Your task to perform on an android device: Open the Play Movies app and select the watchlist tab. Image 0: 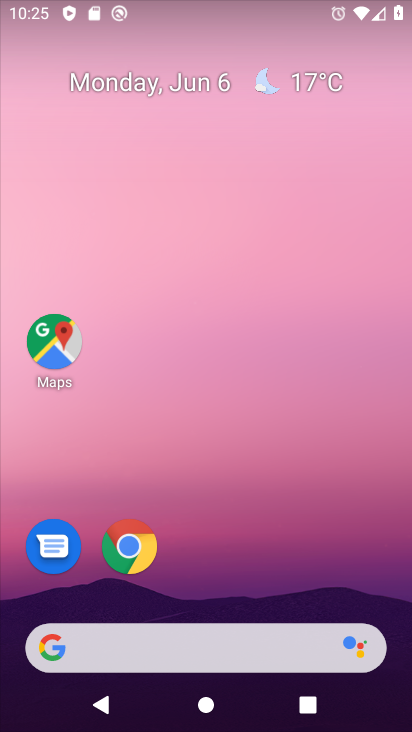
Step 0: drag from (187, 606) to (263, 22)
Your task to perform on an android device: Open the Play Movies app and select the watchlist tab. Image 1: 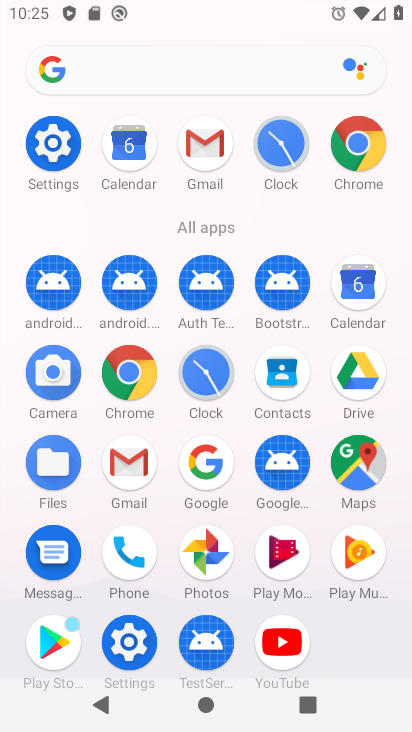
Step 1: click (285, 561)
Your task to perform on an android device: Open the Play Movies app and select the watchlist tab. Image 2: 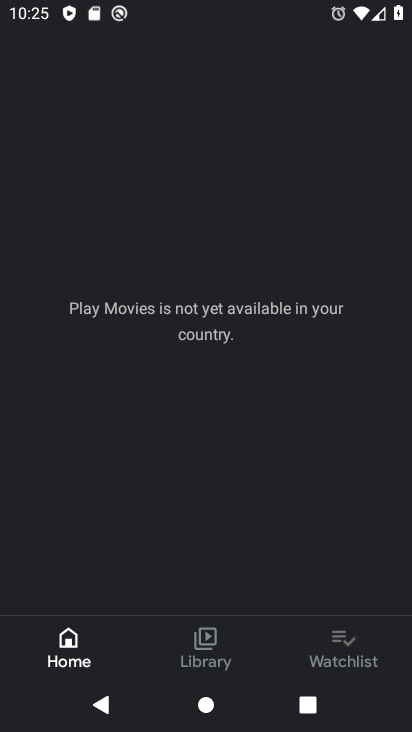
Step 2: click (355, 647)
Your task to perform on an android device: Open the Play Movies app and select the watchlist tab. Image 3: 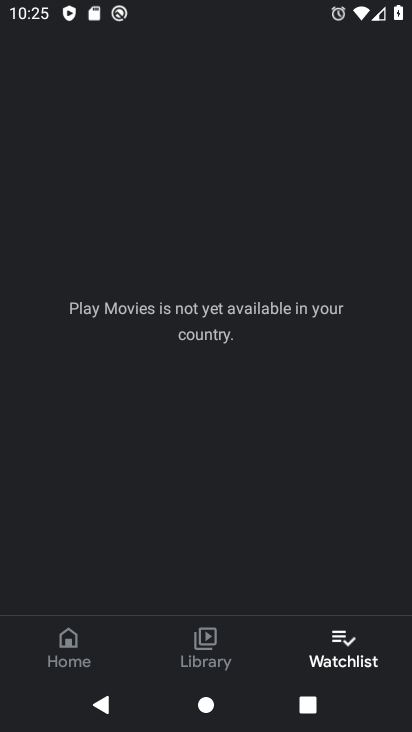
Step 3: task complete